Your task to perform on an android device: open app "Clock" Image 0: 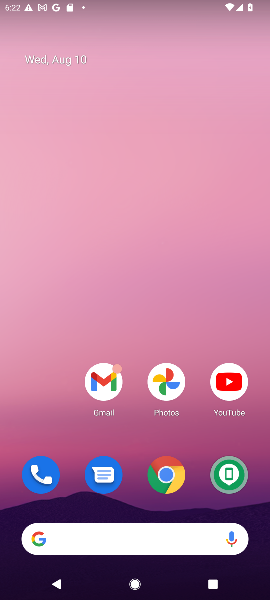
Step 0: drag from (116, 505) to (170, 100)
Your task to perform on an android device: open app "Clock" Image 1: 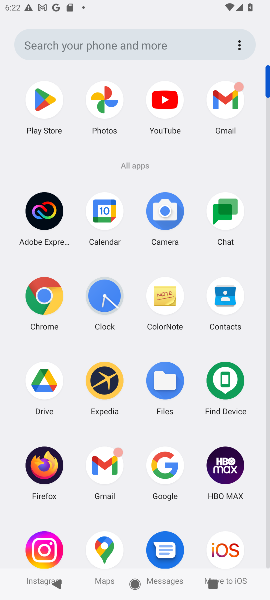
Step 1: click (110, 288)
Your task to perform on an android device: open app "Clock" Image 2: 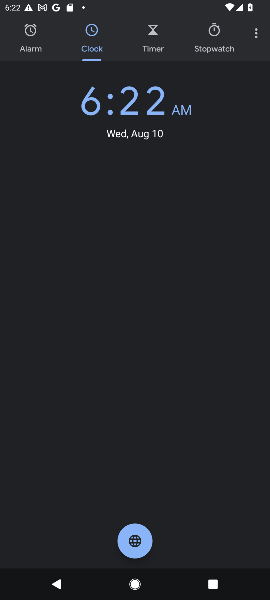
Step 2: task complete